Your task to perform on an android device: Open the phone app and click the voicemail tab. Image 0: 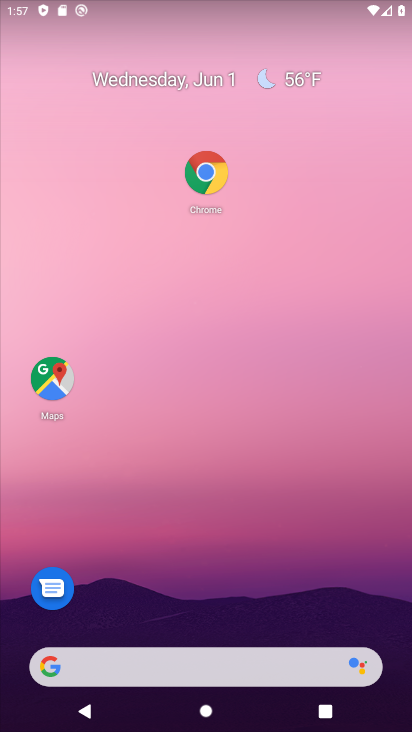
Step 0: drag from (181, 568) to (185, 0)
Your task to perform on an android device: Open the phone app and click the voicemail tab. Image 1: 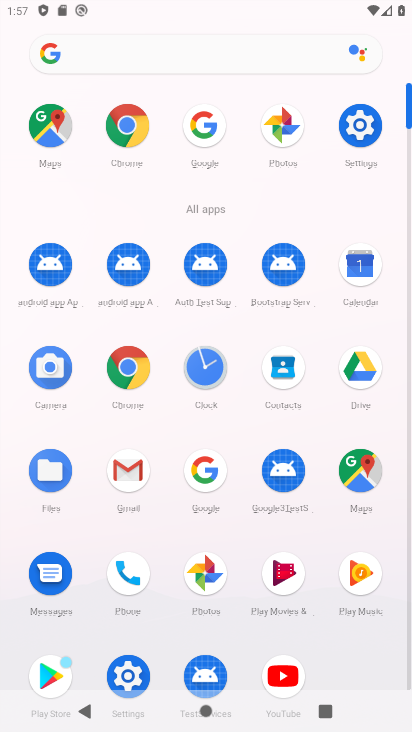
Step 1: click (133, 572)
Your task to perform on an android device: Open the phone app and click the voicemail tab. Image 2: 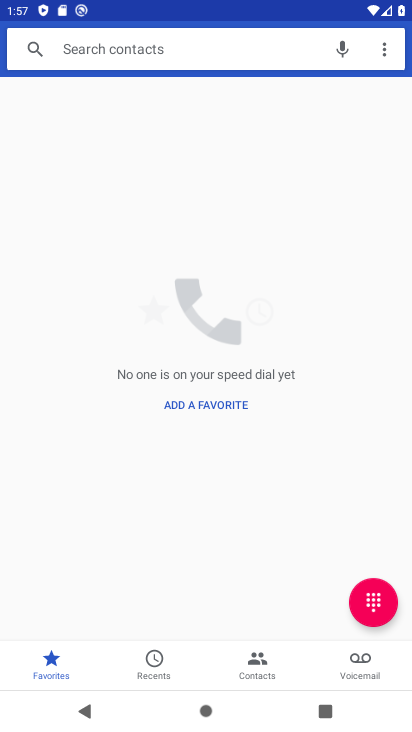
Step 2: click (348, 668)
Your task to perform on an android device: Open the phone app and click the voicemail tab. Image 3: 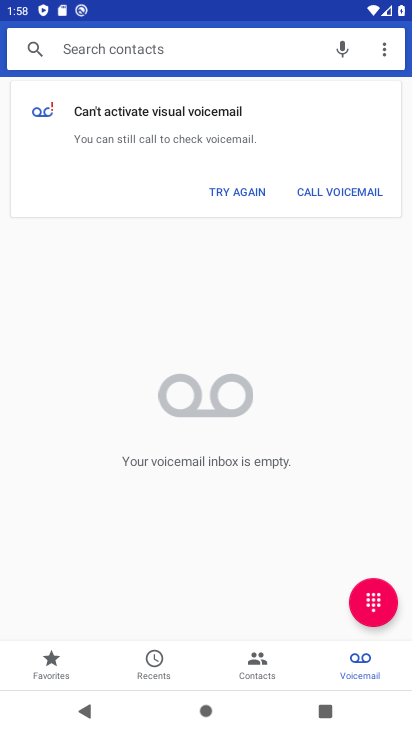
Step 3: task complete